Your task to perform on an android device: Clear the shopping cart on newegg.com. Search for "razer blackwidow" on newegg.com, select the first entry, and add it to the cart. Image 0: 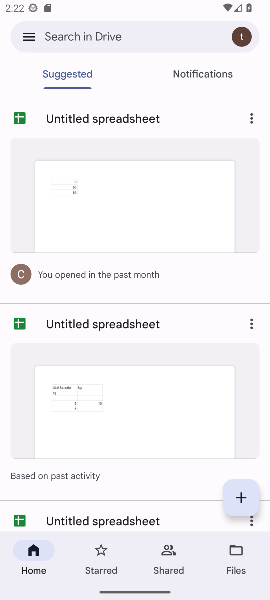
Step 0: press home button
Your task to perform on an android device: Clear the shopping cart on newegg.com. Search for "razer blackwidow" on newegg.com, select the first entry, and add it to the cart. Image 1: 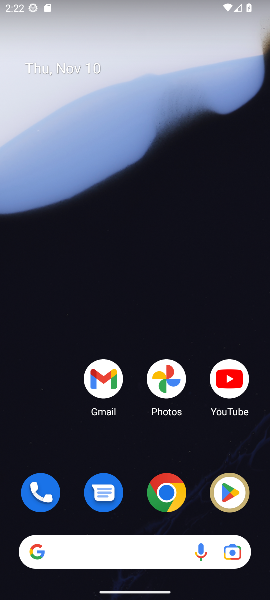
Step 1: click (96, 554)
Your task to perform on an android device: Clear the shopping cart on newegg.com. Search for "razer blackwidow" on newegg.com, select the first entry, and add it to the cart. Image 2: 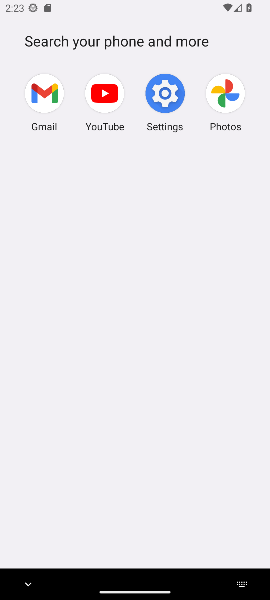
Step 2: type "bestbuy.com"
Your task to perform on an android device: Clear the shopping cart on newegg.com. Search for "razer blackwidow" on newegg.com, select the first entry, and add it to the cart. Image 3: 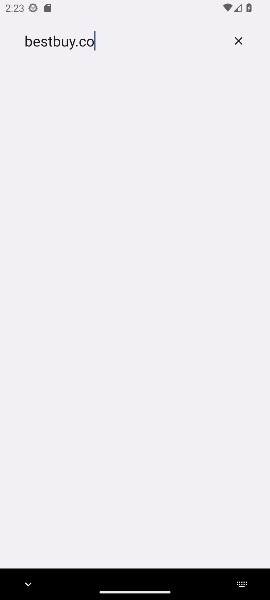
Step 3: type ""
Your task to perform on an android device: Clear the shopping cart on newegg.com. Search for "razer blackwidow" on newegg.com, select the first entry, and add it to the cart. Image 4: 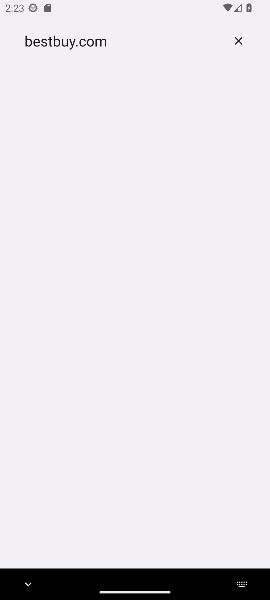
Step 4: press enter
Your task to perform on an android device: Clear the shopping cart on newegg.com. Search for "razer blackwidow" on newegg.com, select the first entry, and add it to the cart. Image 5: 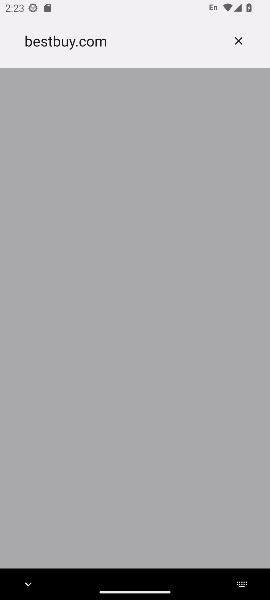
Step 5: press enter
Your task to perform on an android device: Clear the shopping cart on newegg.com. Search for "razer blackwidow" on newegg.com, select the first entry, and add it to the cart. Image 6: 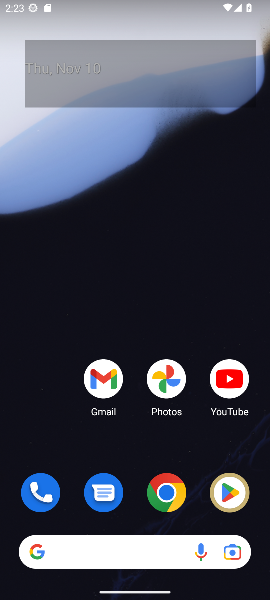
Step 6: click (149, 553)
Your task to perform on an android device: Clear the shopping cart on newegg.com. Search for "razer blackwidow" on newegg.com, select the first entry, and add it to the cart. Image 7: 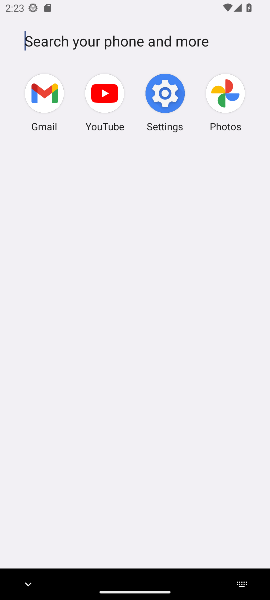
Step 7: type "newegg.com"
Your task to perform on an android device: Clear the shopping cart on newegg.com. Search for "razer blackwidow" on newegg.com, select the first entry, and add it to the cart. Image 8: 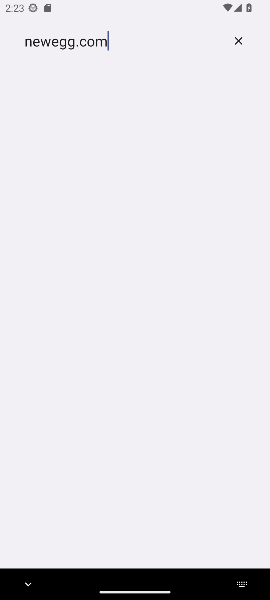
Step 8: type ""
Your task to perform on an android device: Clear the shopping cart on newegg.com. Search for "razer blackwidow" on newegg.com, select the first entry, and add it to the cart. Image 9: 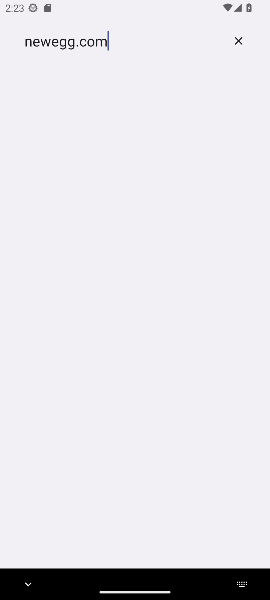
Step 9: press enter
Your task to perform on an android device: Clear the shopping cart on newegg.com. Search for "razer blackwidow" on newegg.com, select the first entry, and add it to the cart. Image 10: 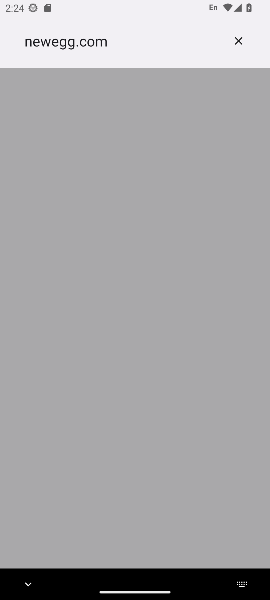
Step 10: press enter
Your task to perform on an android device: Clear the shopping cart on newegg.com. Search for "razer blackwidow" on newegg.com, select the first entry, and add it to the cart. Image 11: 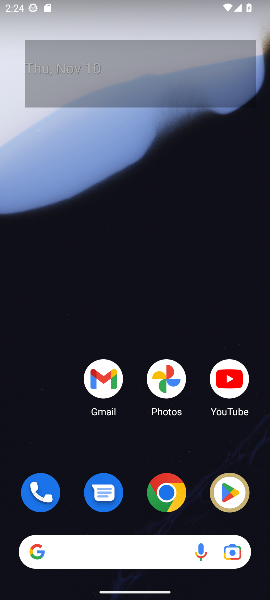
Step 11: click (164, 495)
Your task to perform on an android device: Clear the shopping cart on newegg.com. Search for "razer blackwidow" on newegg.com, select the first entry, and add it to the cart. Image 12: 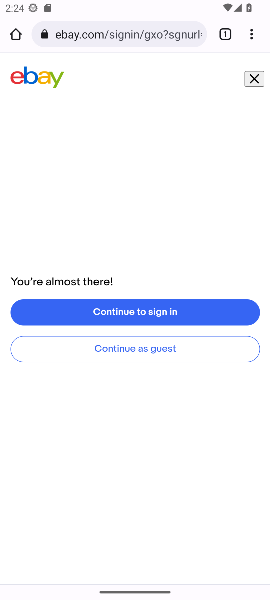
Step 12: click (111, 36)
Your task to perform on an android device: Clear the shopping cart on newegg.com. Search for "razer blackwidow" on newegg.com, select the first entry, and add it to the cart. Image 13: 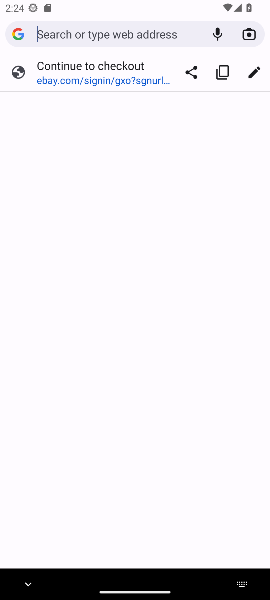
Step 13: type "newegg.com"
Your task to perform on an android device: Clear the shopping cart on newegg.com. Search for "razer blackwidow" on newegg.com, select the first entry, and add it to the cart. Image 14: 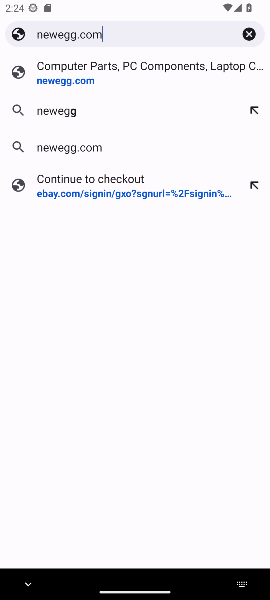
Step 14: type ""
Your task to perform on an android device: Clear the shopping cart on newegg.com. Search for "razer blackwidow" on newegg.com, select the first entry, and add it to the cart. Image 15: 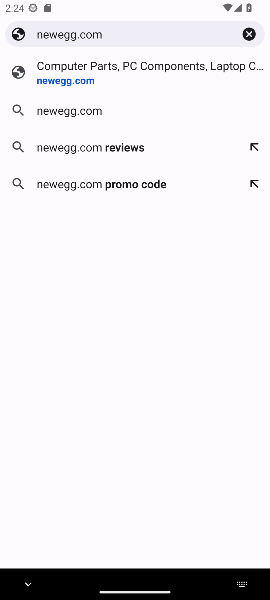
Step 15: click (52, 112)
Your task to perform on an android device: Clear the shopping cart on newegg.com. Search for "razer blackwidow" on newegg.com, select the first entry, and add it to the cart. Image 16: 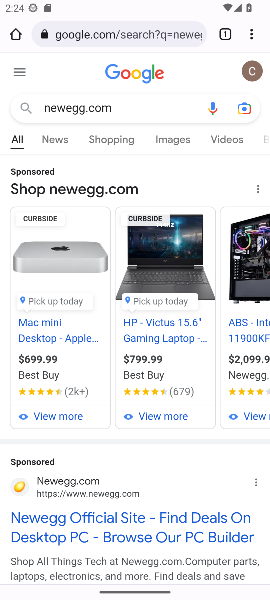
Step 16: click (131, 506)
Your task to perform on an android device: Clear the shopping cart on newegg.com. Search for "razer blackwidow" on newegg.com, select the first entry, and add it to the cart. Image 17: 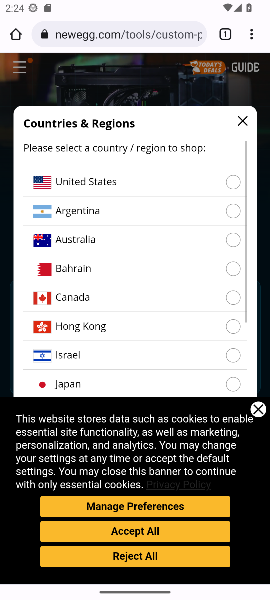
Step 17: click (129, 529)
Your task to perform on an android device: Clear the shopping cart on newegg.com. Search for "razer blackwidow" on newegg.com, select the first entry, and add it to the cart. Image 18: 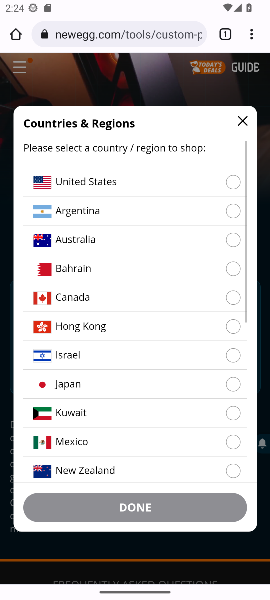
Step 18: click (232, 178)
Your task to perform on an android device: Clear the shopping cart on newegg.com. Search for "razer blackwidow" on newegg.com, select the first entry, and add it to the cart. Image 19: 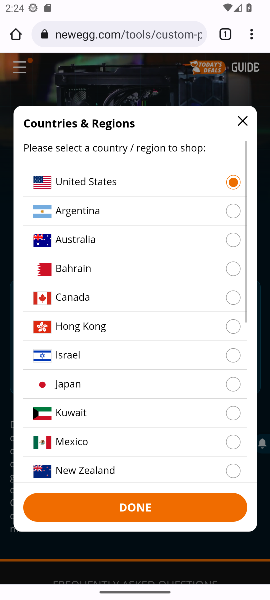
Step 19: click (158, 503)
Your task to perform on an android device: Clear the shopping cart on newegg.com. Search for "razer blackwidow" on newegg.com, select the first entry, and add it to the cart. Image 20: 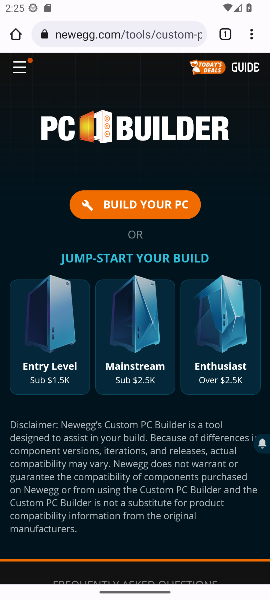
Step 20: drag from (133, 517) to (132, 298)
Your task to perform on an android device: Clear the shopping cart on newegg.com. Search for "razer blackwidow" on newegg.com, select the first entry, and add it to the cart. Image 21: 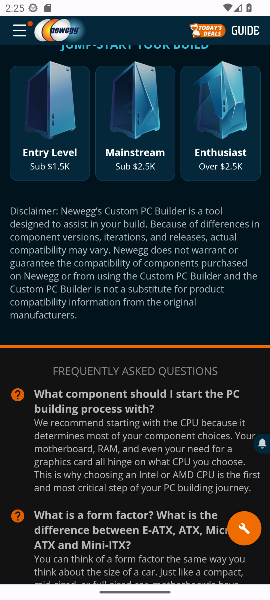
Step 21: drag from (149, 418) to (120, 306)
Your task to perform on an android device: Clear the shopping cart on newegg.com. Search for "razer blackwidow" on newegg.com, select the first entry, and add it to the cart. Image 22: 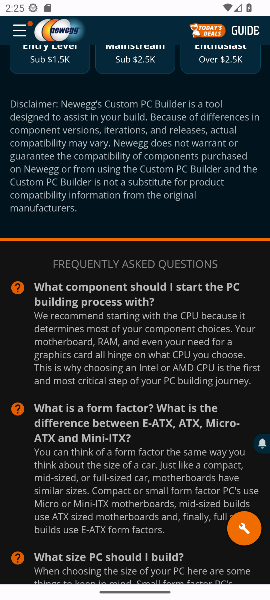
Step 22: click (68, 152)
Your task to perform on an android device: Clear the shopping cart on newegg.com. Search for "razer blackwidow" on newegg.com, select the first entry, and add it to the cart. Image 23: 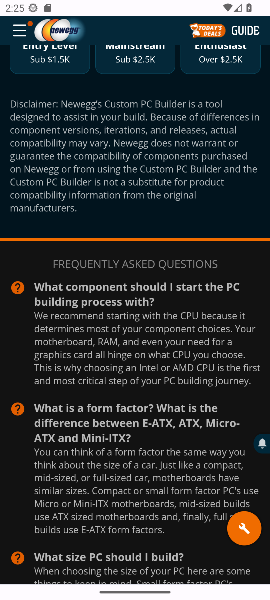
Step 23: task complete